Your task to perform on an android device: turn off translation in the chrome app Image 0: 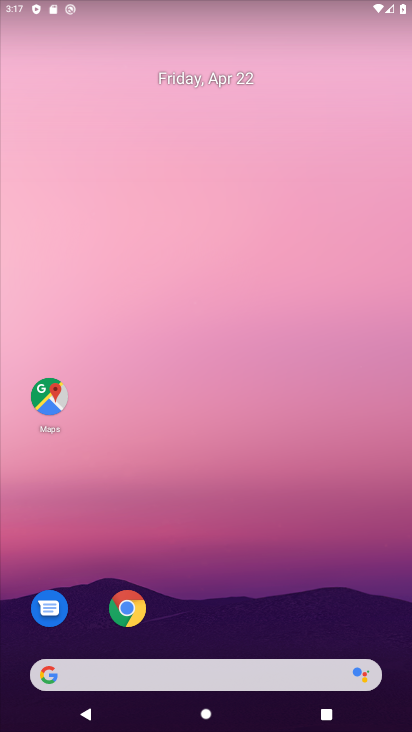
Step 0: click (135, 610)
Your task to perform on an android device: turn off translation in the chrome app Image 1: 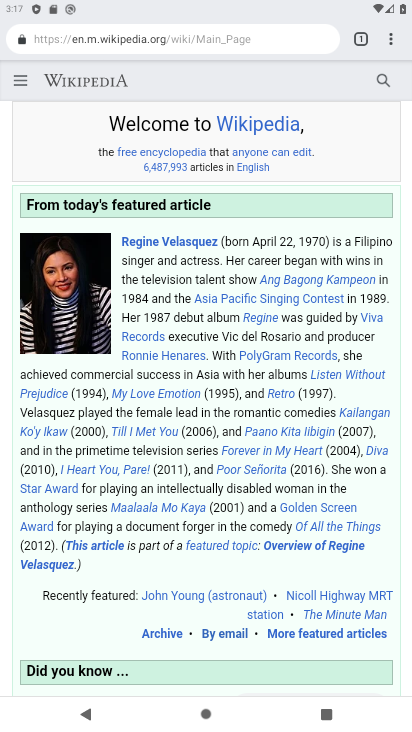
Step 1: click (390, 57)
Your task to perform on an android device: turn off translation in the chrome app Image 2: 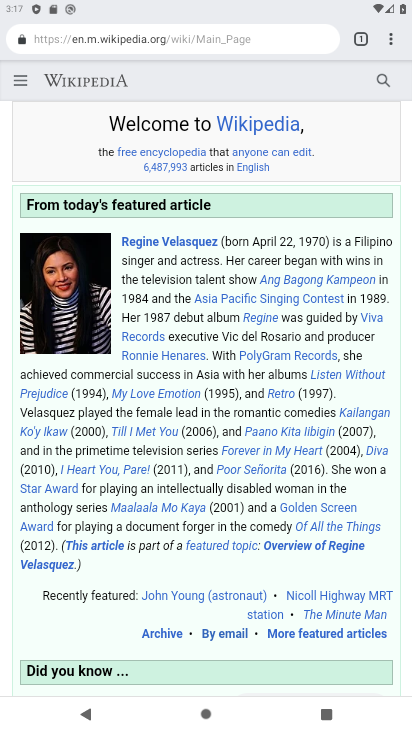
Step 2: drag from (392, 51) to (277, 464)
Your task to perform on an android device: turn off translation in the chrome app Image 3: 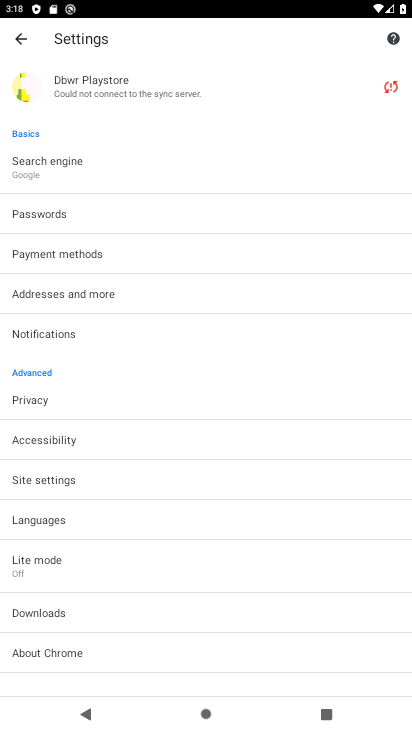
Step 3: click (126, 526)
Your task to perform on an android device: turn off translation in the chrome app Image 4: 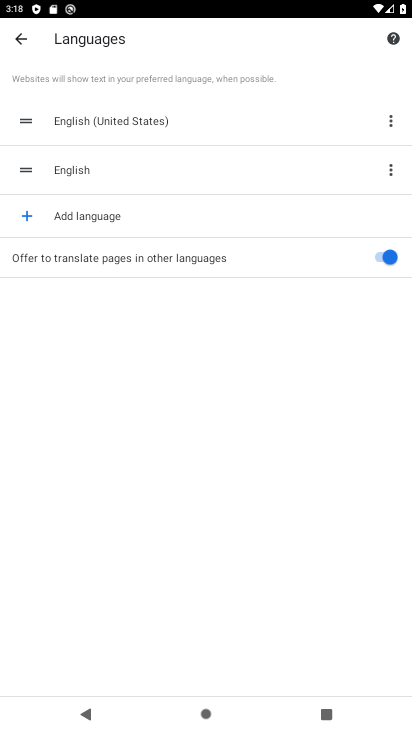
Step 4: click (378, 259)
Your task to perform on an android device: turn off translation in the chrome app Image 5: 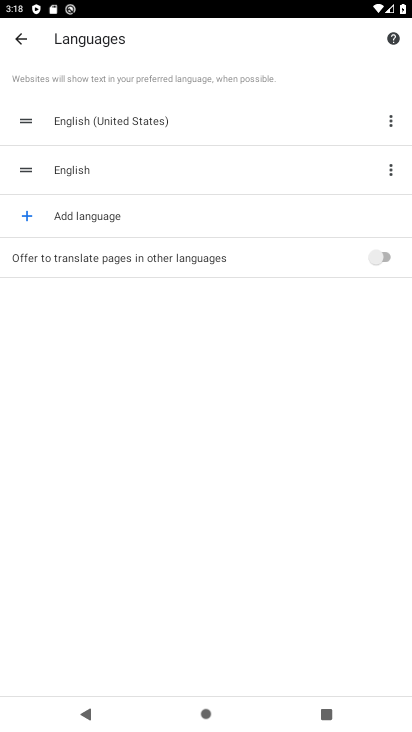
Step 5: task complete